Your task to perform on an android device: Open the calendar and show me this week's events Image 0: 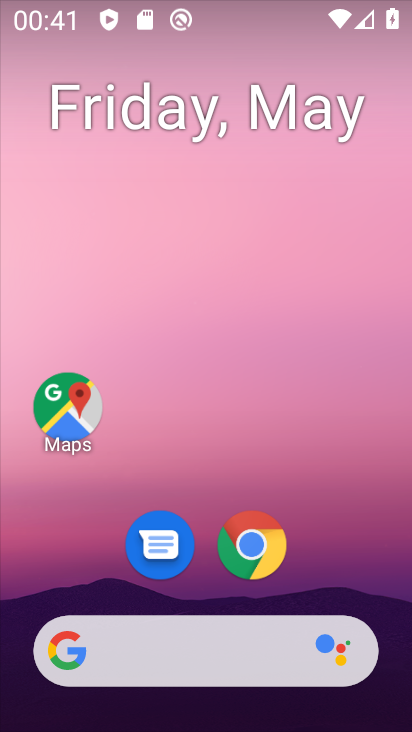
Step 0: drag from (288, 574) to (0, 226)
Your task to perform on an android device: Open the calendar and show me this week's events Image 1: 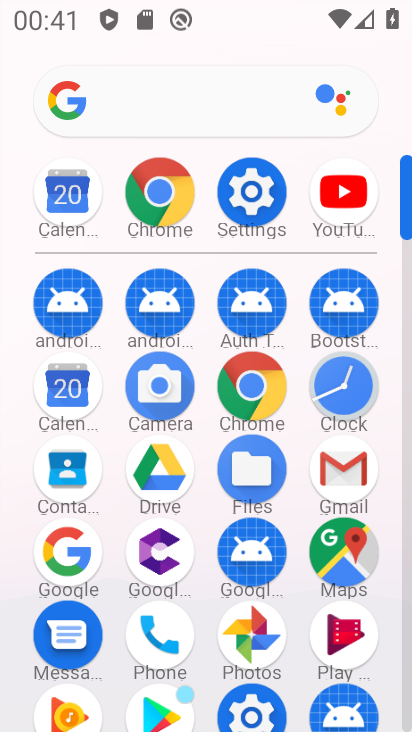
Step 1: click (53, 262)
Your task to perform on an android device: Open the calendar and show me this week's events Image 2: 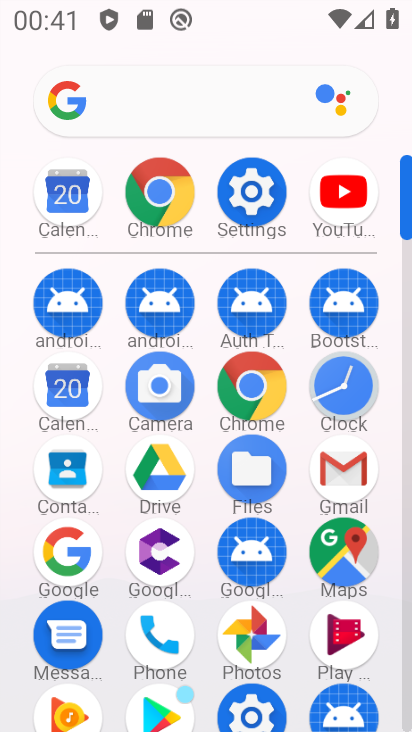
Step 2: click (69, 223)
Your task to perform on an android device: Open the calendar and show me this week's events Image 3: 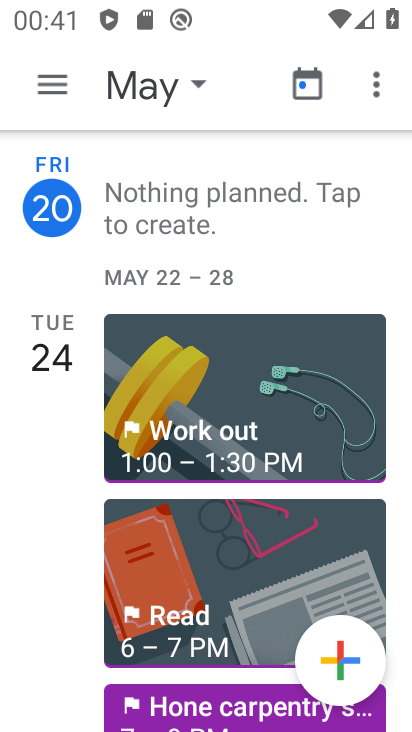
Step 3: click (47, 81)
Your task to perform on an android device: Open the calendar and show me this week's events Image 4: 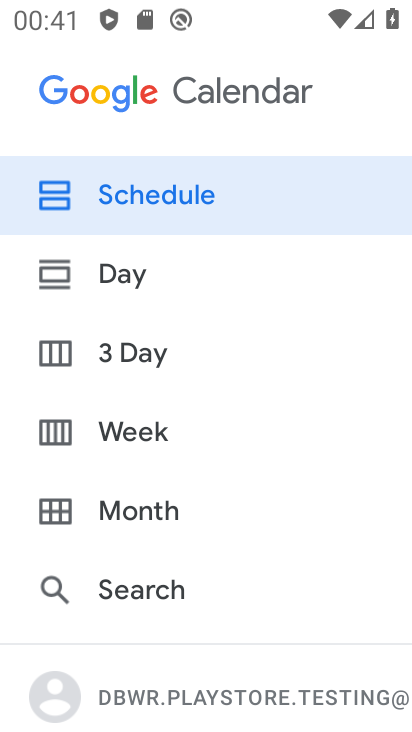
Step 4: click (128, 434)
Your task to perform on an android device: Open the calendar and show me this week's events Image 5: 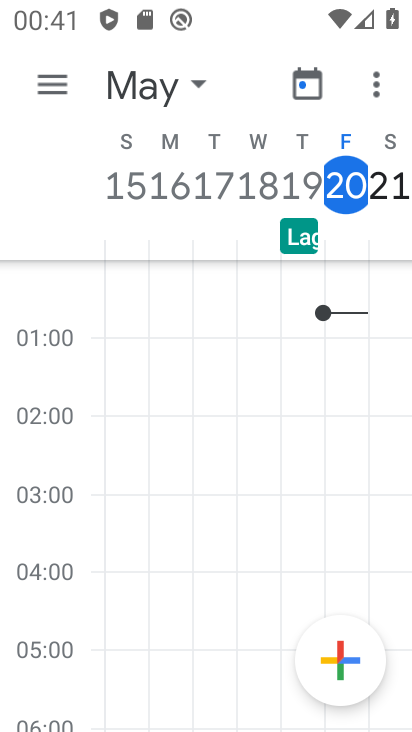
Step 5: task complete